Your task to perform on an android device: Open sound settings Image 0: 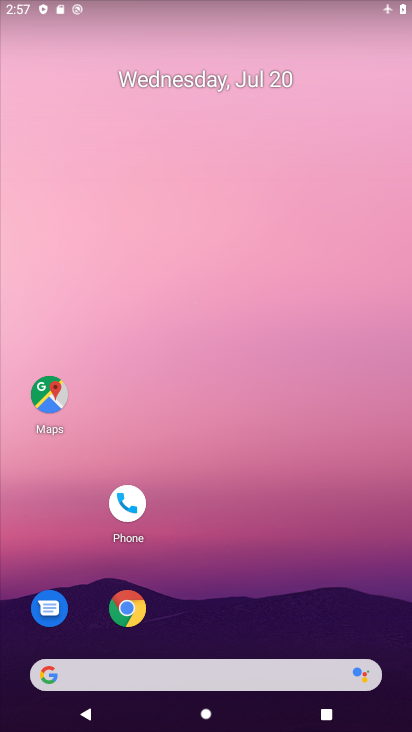
Step 0: drag from (358, 638) to (345, 115)
Your task to perform on an android device: Open sound settings Image 1: 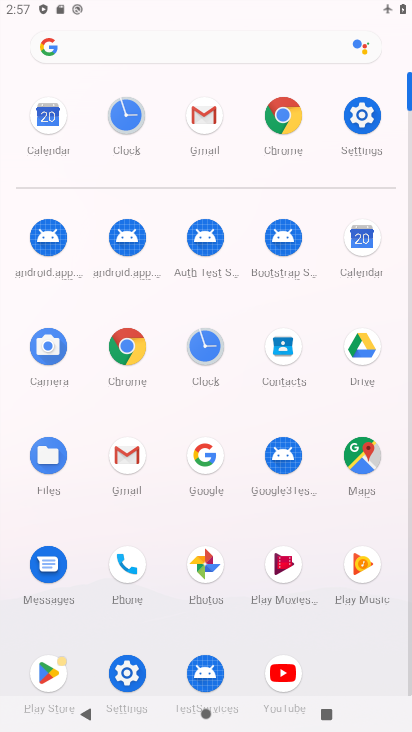
Step 1: click (355, 109)
Your task to perform on an android device: Open sound settings Image 2: 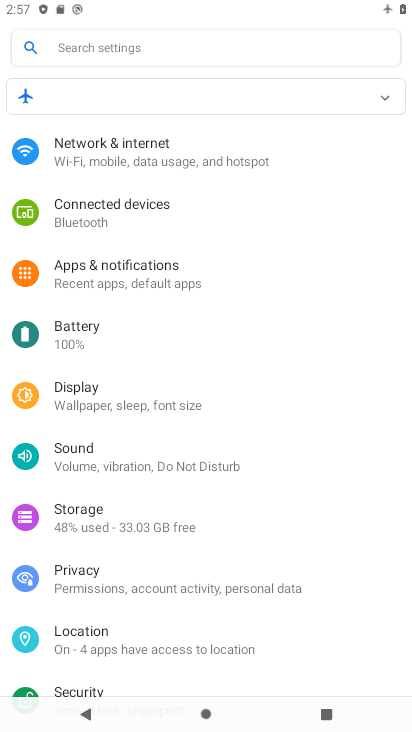
Step 2: click (125, 449)
Your task to perform on an android device: Open sound settings Image 3: 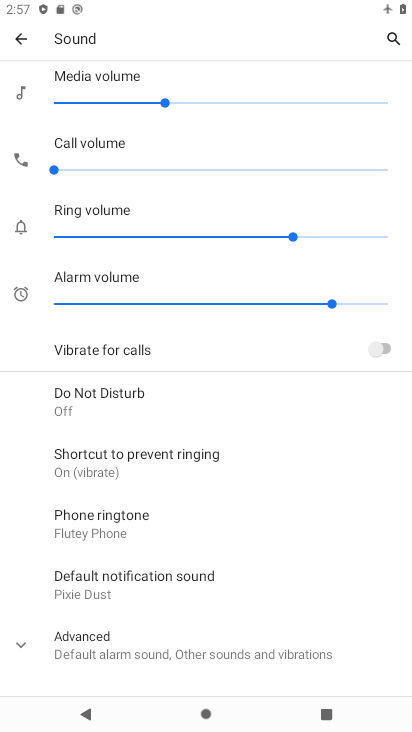
Step 3: task complete